Your task to perform on an android device: find snoozed emails in the gmail app Image 0: 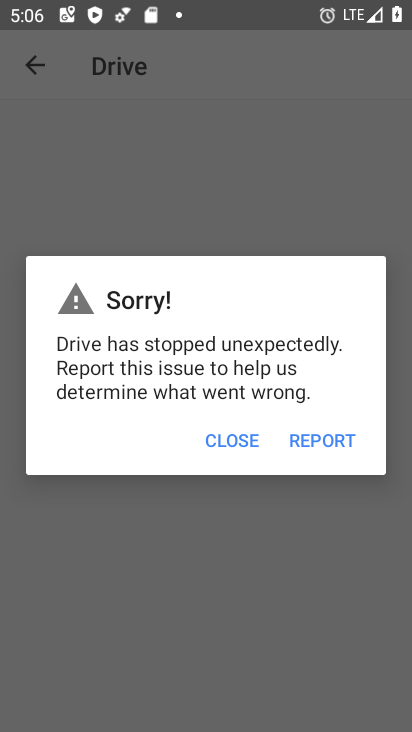
Step 0: click (259, 594)
Your task to perform on an android device: find snoozed emails in the gmail app Image 1: 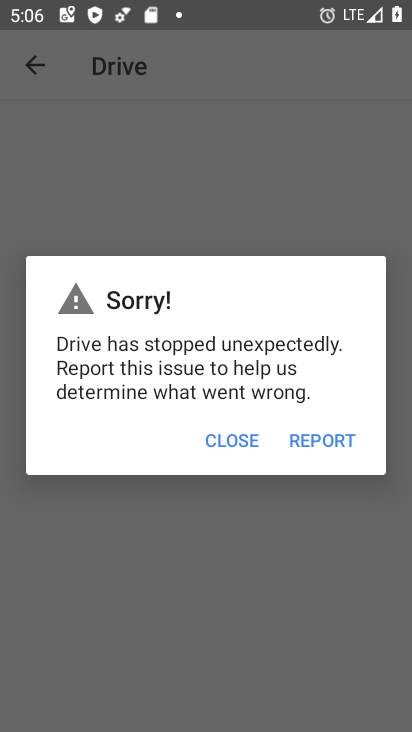
Step 1: press home button
Your task to perform on an android device: find snoozed emails in the gmail app Image 2: 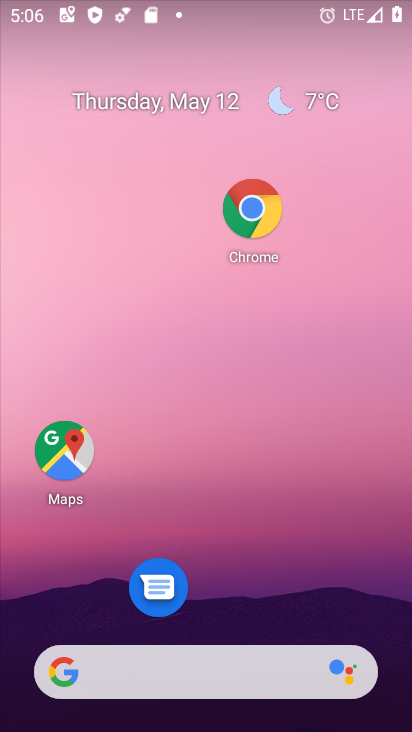
Step 2: drag from (289, 592) to (277, 20)
Your task to perform on an android device: find snoozed emails in the gmail app Image 3: 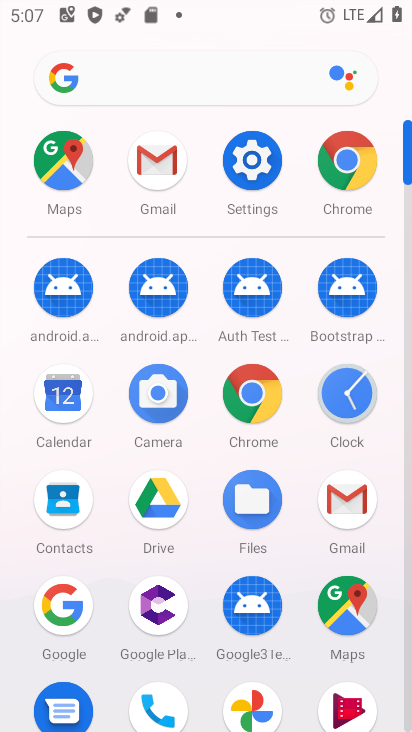
Step 3: drag from (213, 585) to (240, 273)
Your task to perform on an android device: find snoozed emails in the gmail app Image 4: 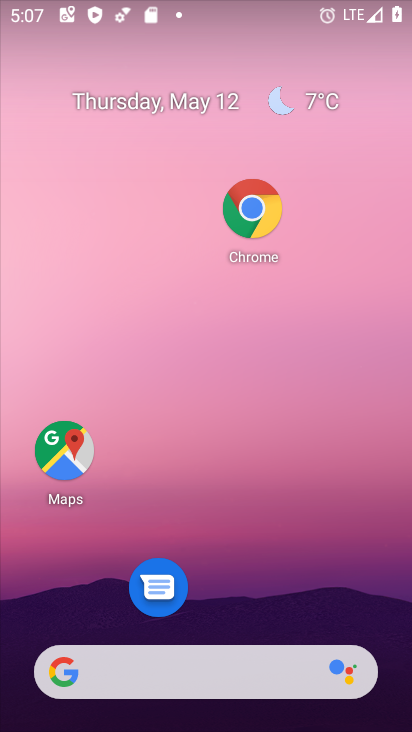
Step 4: drag from (230, 603) to (268, 180)
Your task to perform on an android device: find snoozed emails in the gmail app Image 5: 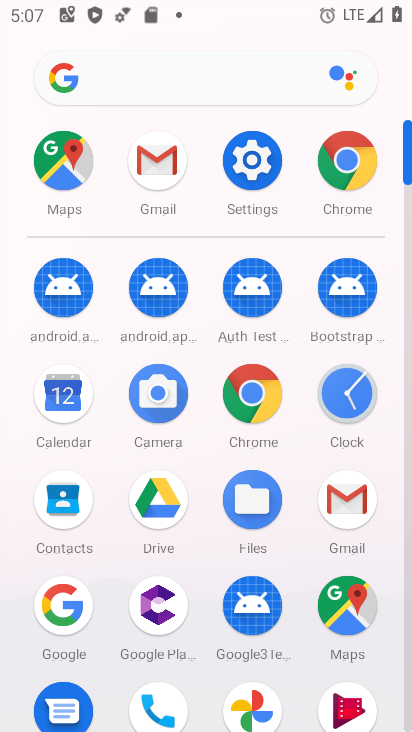
Step 5: click (148, 165)
Your task to perform on an android device: find snoozed emails in the gmail app Image 6: 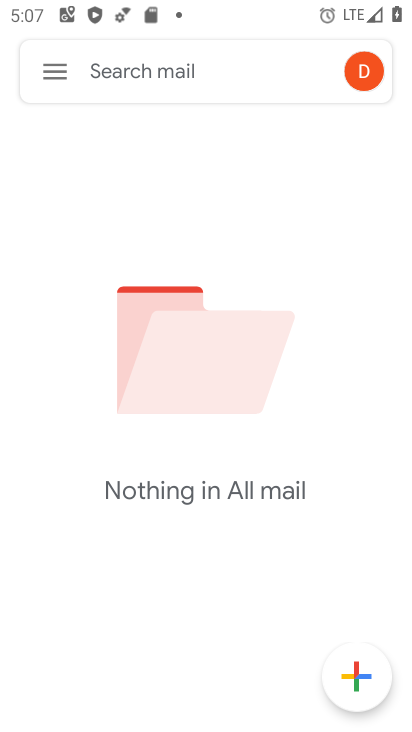
Step 6: click (45, 80)
Your task to perform on an android device: find snoozed emails in the gmail app Image 7: 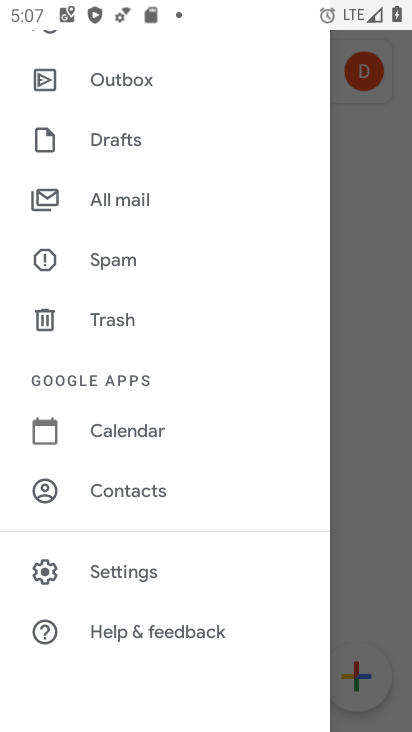
Step 7: drag from (135, 151) to (136, 488)
Your task to perform on an android device: find snoozed emails in the gmail app Image 8: 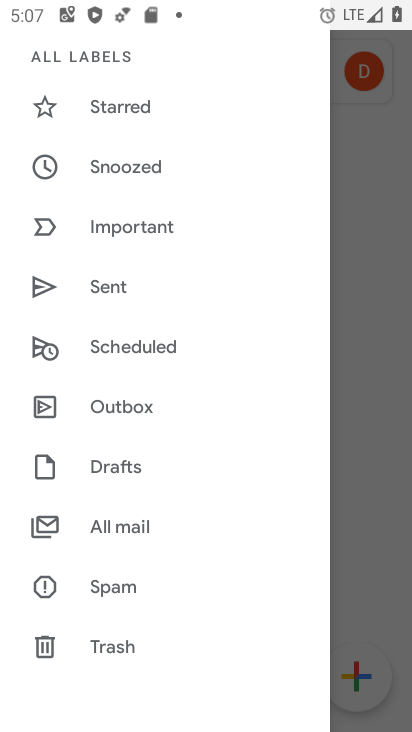
Step 8: click (127, 170)
Your task to perform on an android device: find snoozed emails in the gmail app Image 9: 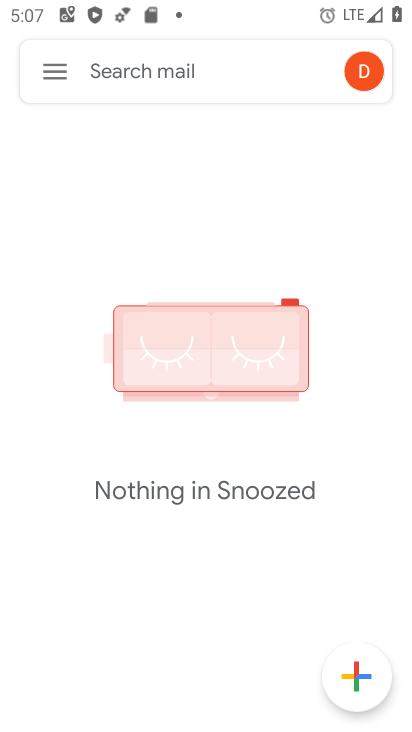
Step 9: task complete